Your task to perform on an android device: turn on wifi Image 0: 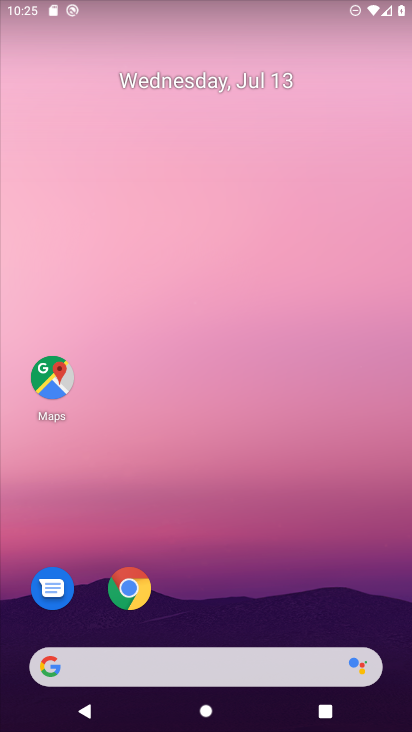
Step 0: drag from (201, 606) to (202, 145)
Your task to perform on an android device: turn on wifi Image 1: 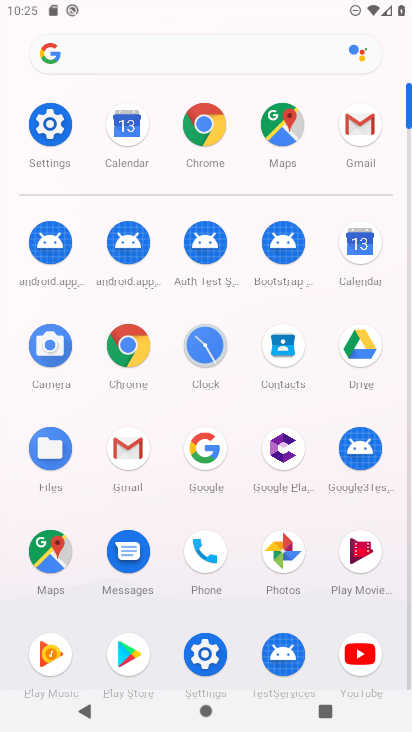
Step 1: click (63, 131)
Your task to perform on an android device: turn on wifi Image 2: 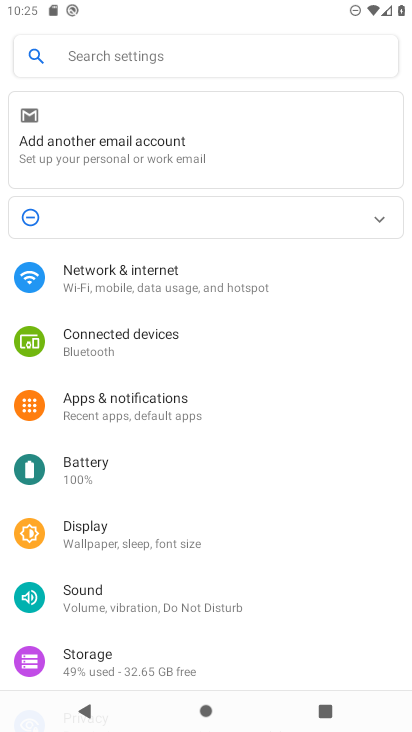
Step 2: click (91, 297)
Your task to perform on an android device: turn on wifi Image 3: 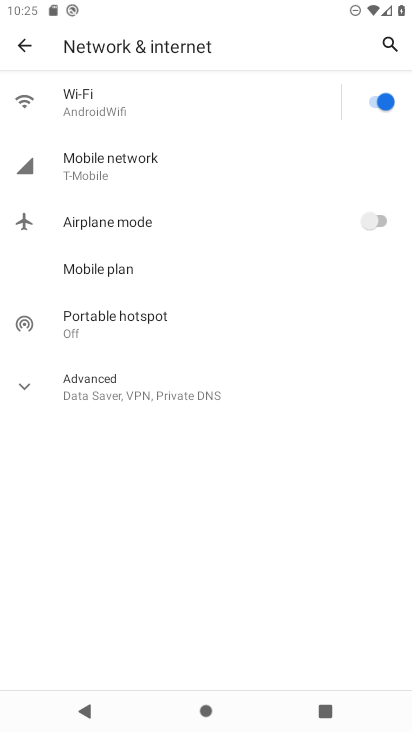
Step 3: click (249, 99)
Your task to perform on an android device: turn on wifi Image 4: 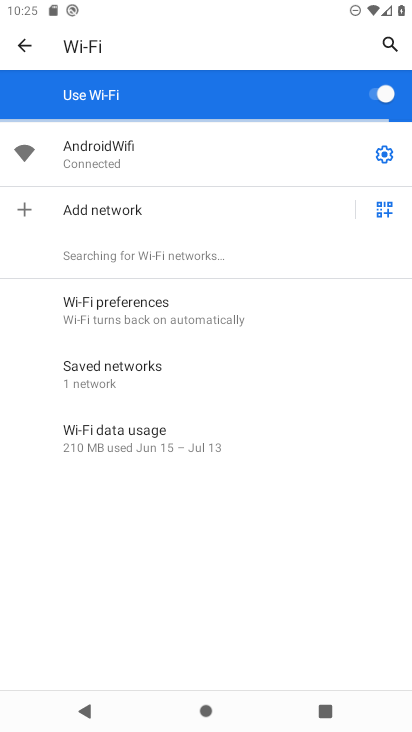
Step 4: task complete